Your task to perform on an android device: Open ESPN.com Image 0: 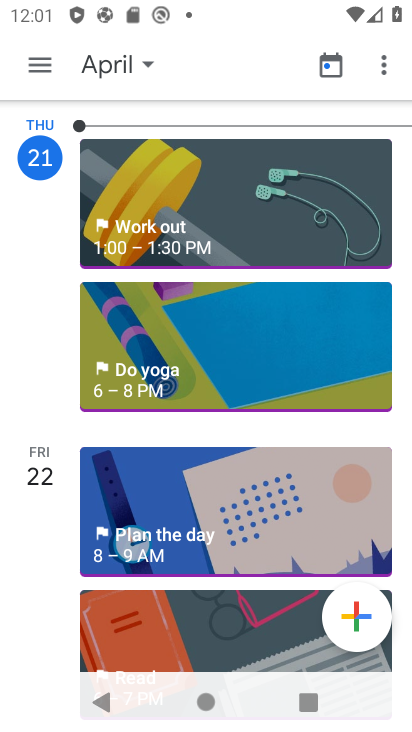
Step 0: press home button
Your task to perform on an android device: Open ESPN.com Image 1: 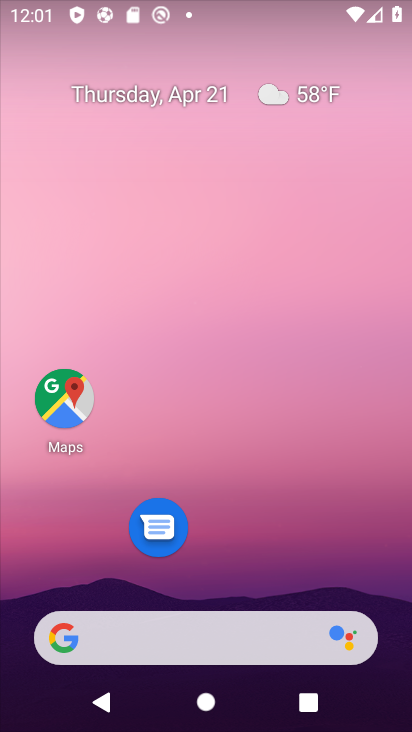
Step 1: drag from (213, 701) to (214, 125)
Your task to perform on an android device: Open ESPN.com Image 2: 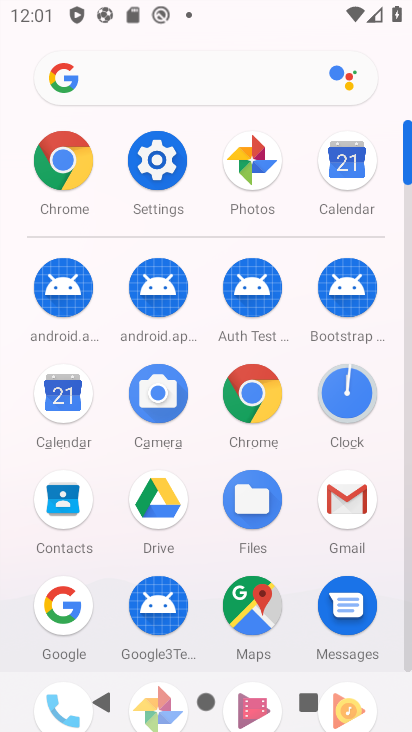
Step 2: click (63, 158)
Your task to perform on an android device: Open ESPN.com Image 3: 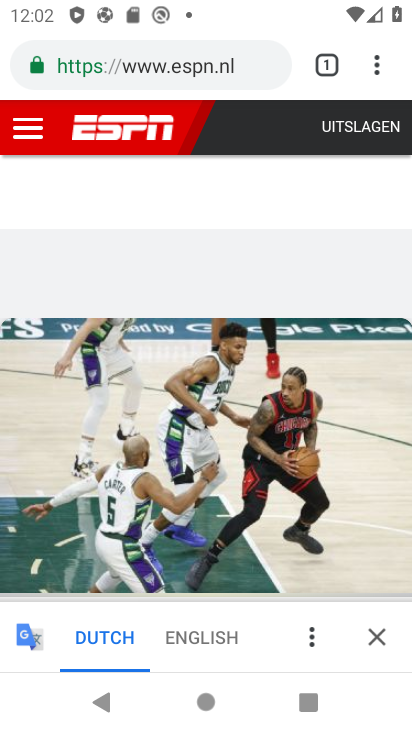
Step 3: task complete